Your task to perform on an android device: move a message to another label in the gmail app Image 0: 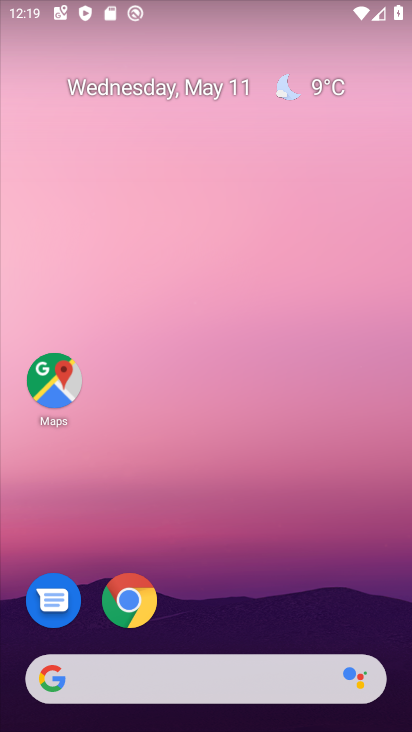
Step 0: drag from (283, 692) to (190, 132)
Your task to perform on an android device: move a message to another label in the gmail app Image 1: 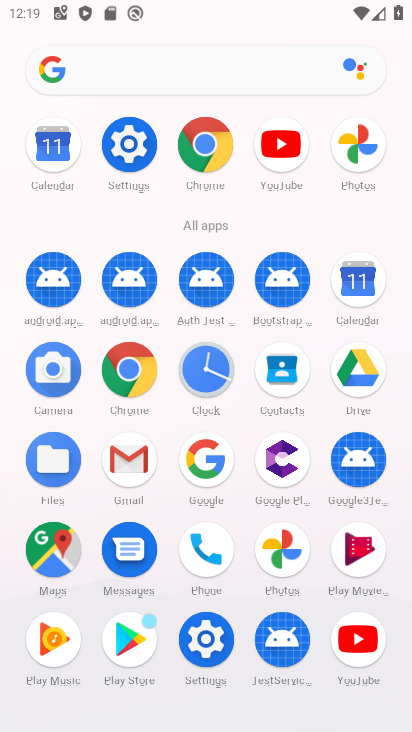
Step 1: drag from (203, 565) to (214, 194)
Your task to perform on an android device: move a message to another label in the gmail app Image 2: 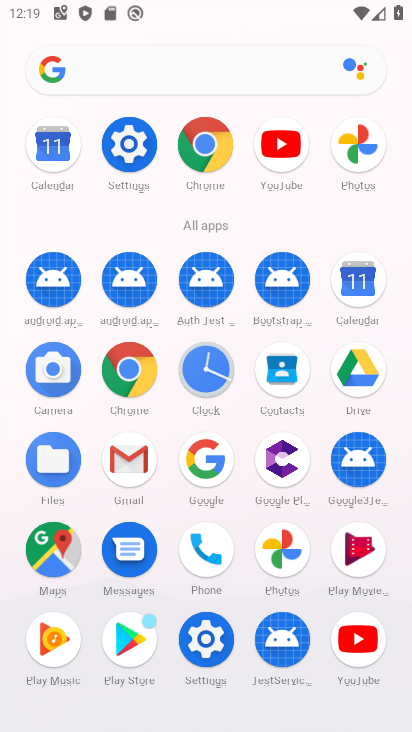
Step 2: click (130, 459)
Your task to perform on an android device: move a message to another label in the gmail app Image 3: 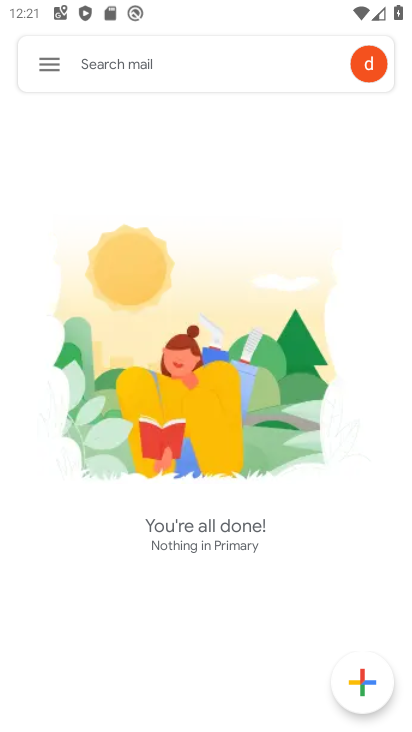
Step 3: task complete